Your task to perform on an android device: empty trash in the gmail app Image 0: 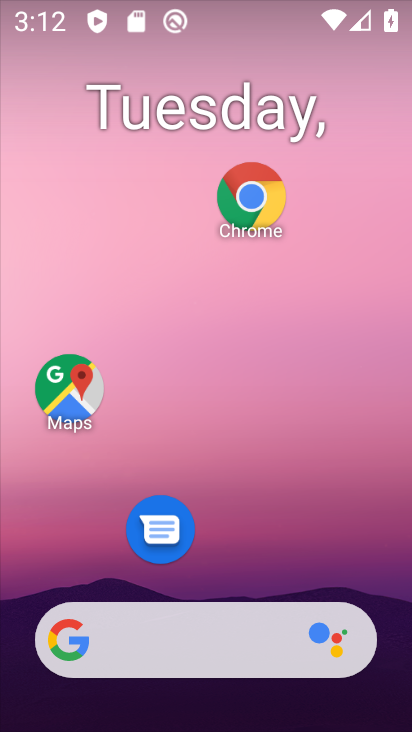
Step 0: drag from (217, 602) to (307, 248)
Your task to perform on an android device: empty trash in the gmail app Image 1: 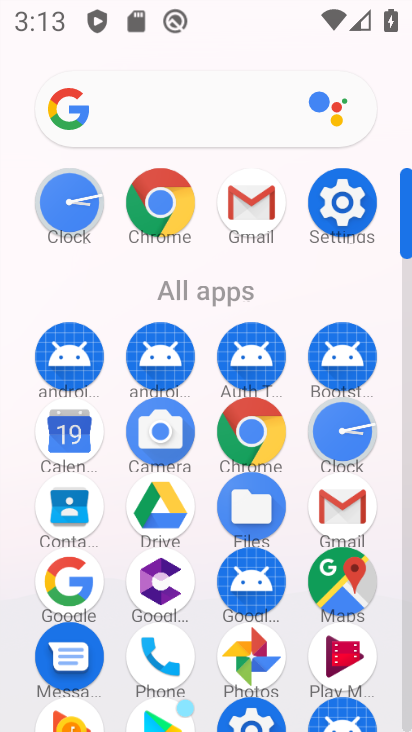
Step 1: click (350, 515)
Your task to perform on an android device: empty trash in the gmail app Image 2: 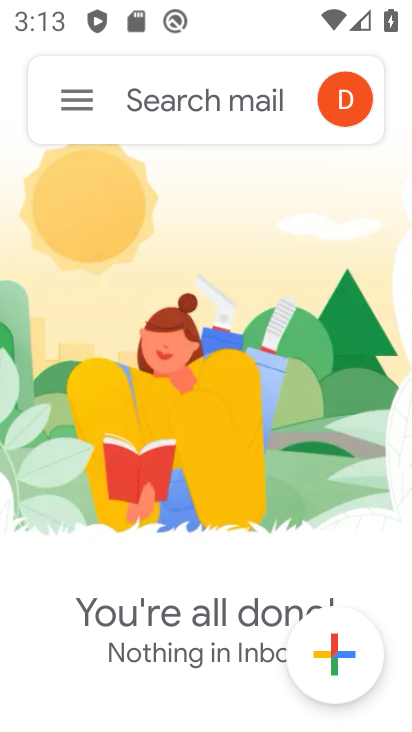
Step 2: click (67, 104)
Your task to perform on an android device: empty trash in the gmail app Image 3: 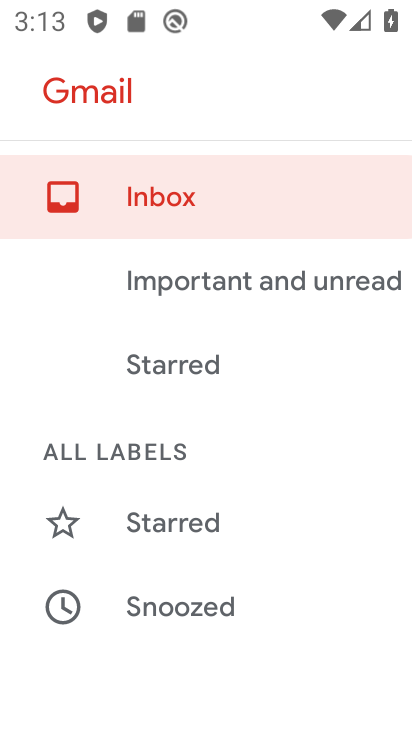
Step 3: drag from (209, 593) to (241, 310)
Your task to perform on an android device: empty trash in the gmail app Image 4: 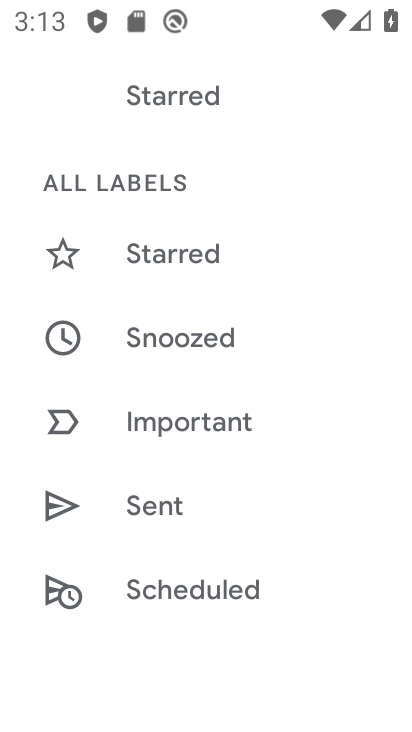
Step 4: drag from (182, 636) to (169, 300)
Your task to perform on an android device: empty trash in the gmail app Image 5: 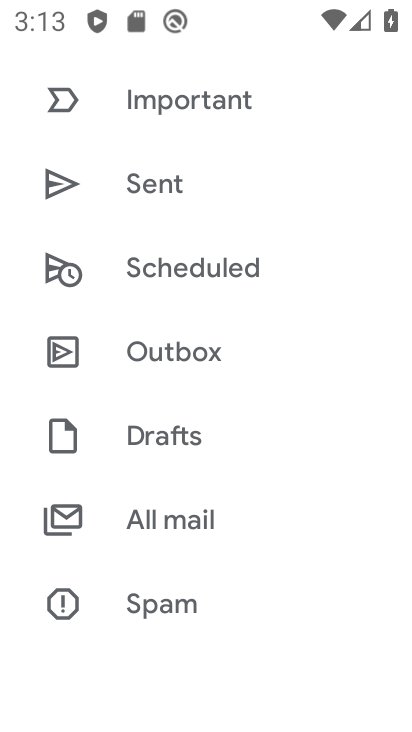
Step 5: drag from (175, 617) to (207, 364)
Your task to perform on an android device: empty trash in the gmail app Image 6: 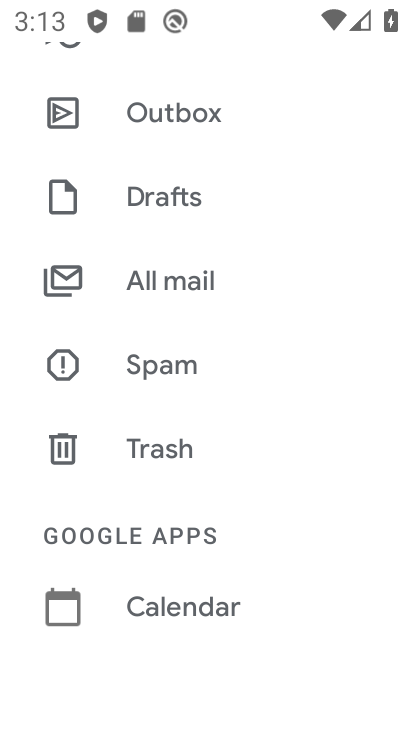
Step 6: click (153, 445)
Your task to perform on an android device: empty trash in the gmail app Image 7: 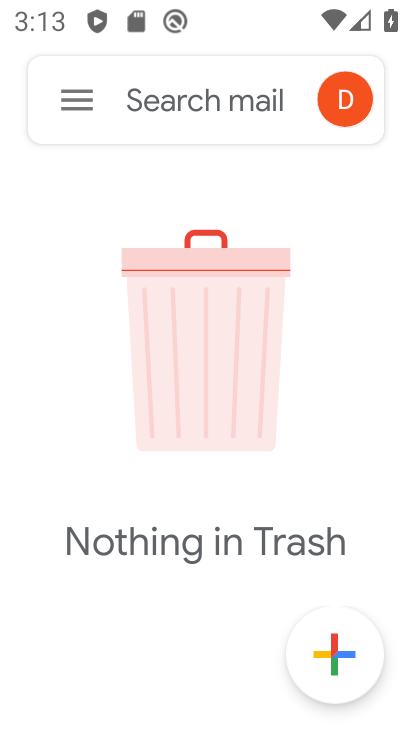
Step 7: task complete